Your task to perform on an android device: turn on improve location accuracy Image 0: 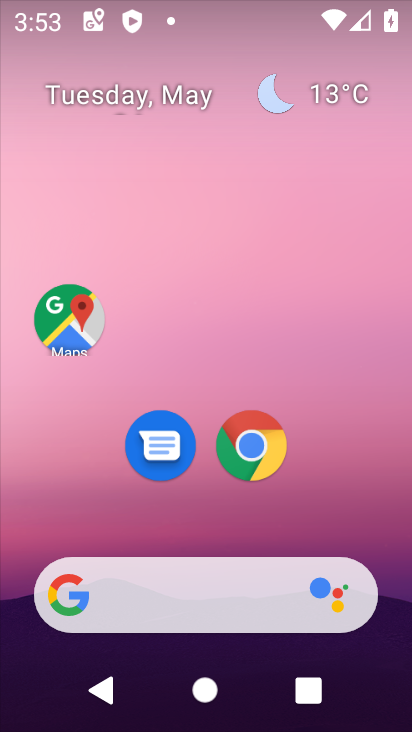
Step 0: press home button
Your task to perform on an android device: turn on improve location accuracy Image 1: 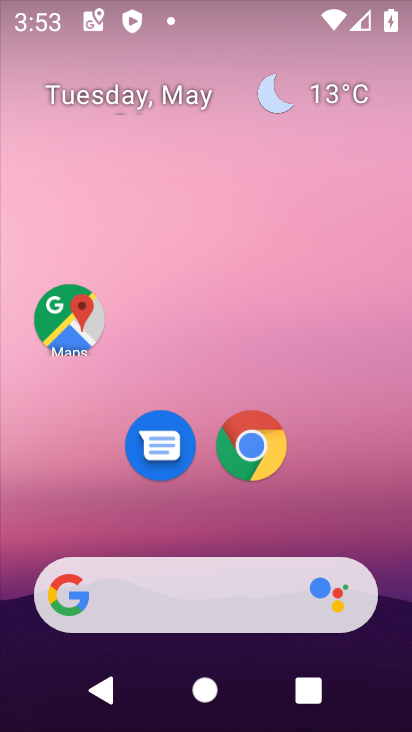
Step 1: drag from (205, 524) to (222, 50)
Your task to perform on an android device: turn on improve location accuracy Image 2: 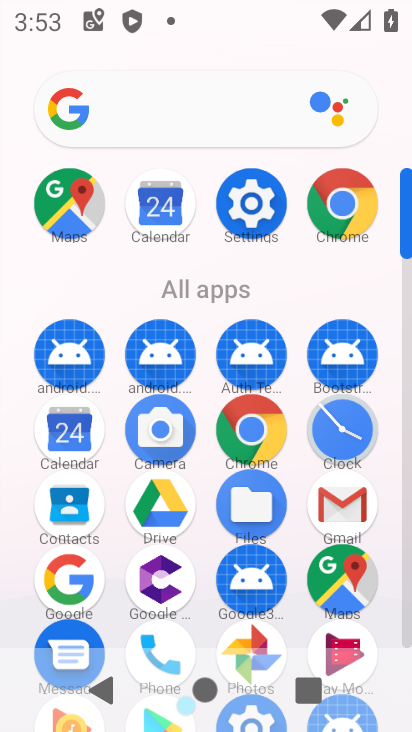
Step 2: click (252, 195)
Your task to perform on an android device: turn on improve location accuracy Image 3: 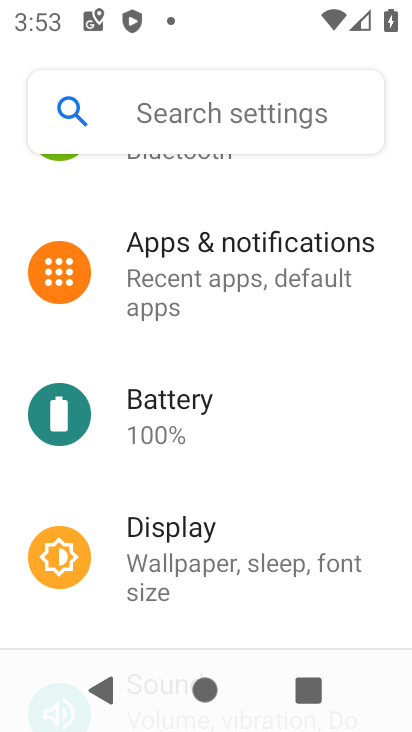
Step 3: drag from (225, 595) to (245, 119)
Your task to perform on an android device: turn on improve location accuracy Image 4: 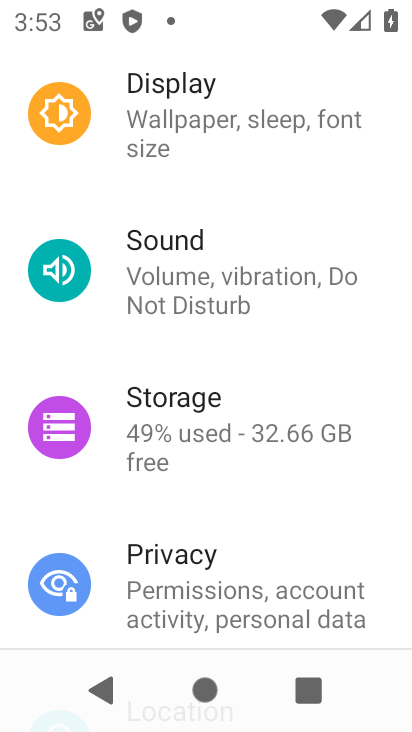
Step 4: drag from (242, 594) to (257, 188)
Your task to perform on an android device: turn on improve location accuracy Image 5: 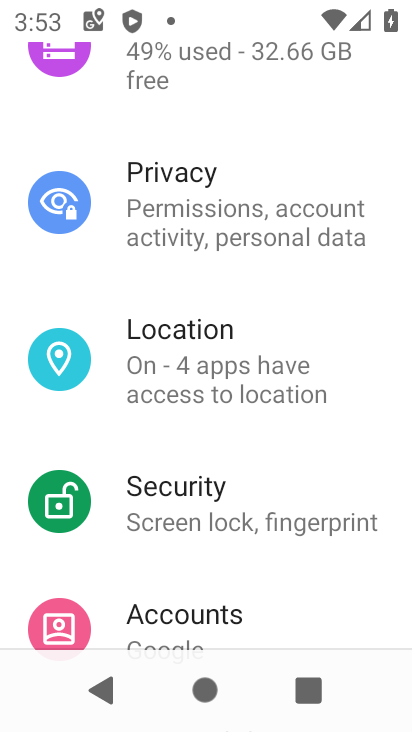
Step 5: click (254, 333)
Your task to perform on an android device: turn on improve location accuracy Image 6: 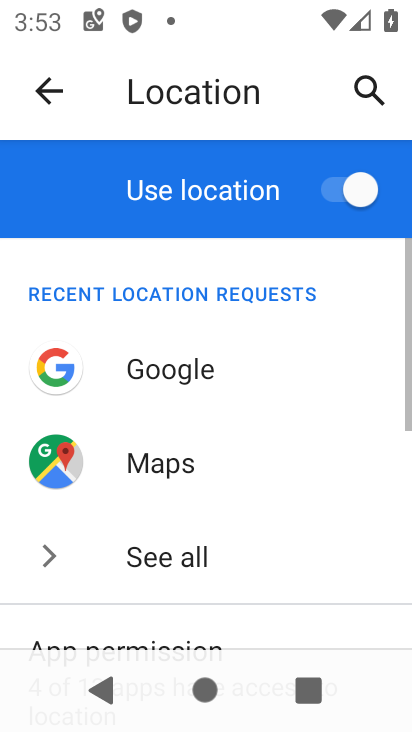
Step 6: drag from (201, 602) to (207, 186)
Your task to perform on an android device: turn on improve location accuracy Image 7: 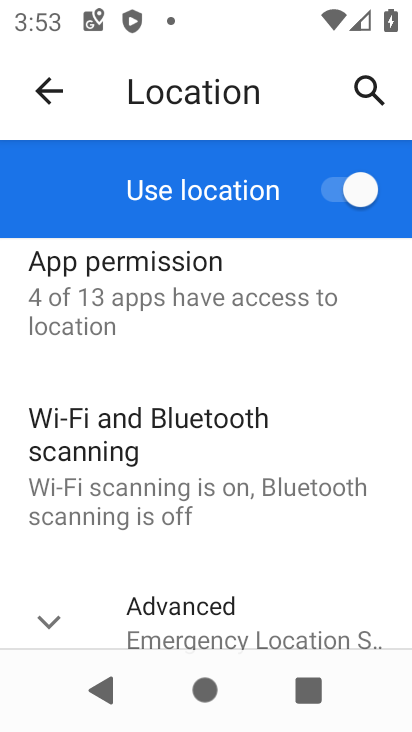
Step 7: click (48, 614)
Your task to perform on an android device: turn on improve location accuracy Image 8: 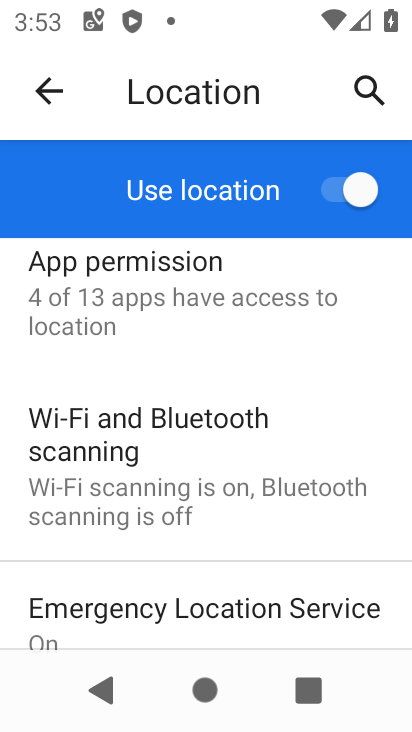
Step 8: drag from (180, 627) to (210, 220)
Your task to perform on an android device: turn on improve location accuracy Image 9: 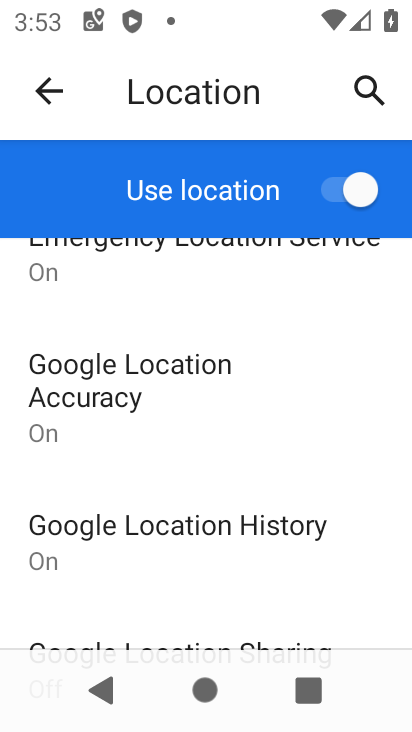
Step 9: click (165, 394)
Your task to perform on an android device: turn on improve location accuracy Image 10: 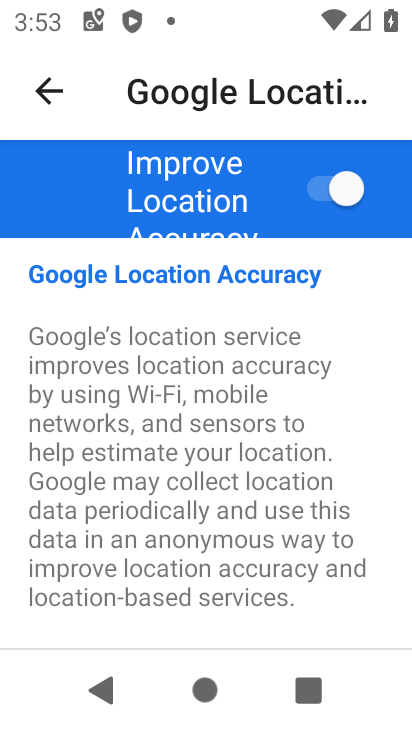
Step 10: task complete